Your task to perform on an android device: Go to Google maps Image 0: 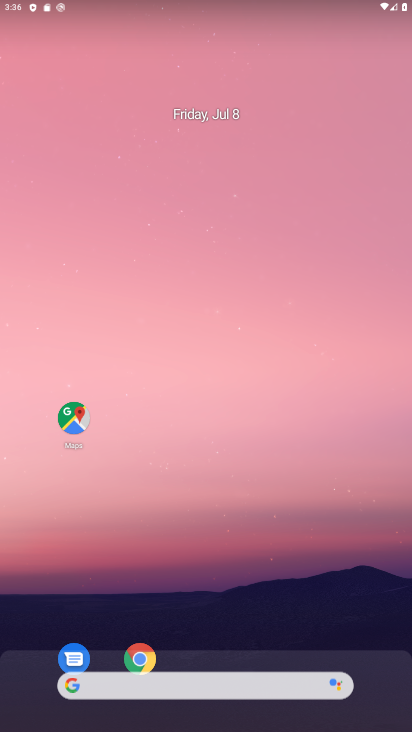
Step 0: drag from (267, 643) to (346, 109)
Your task to perform on an android device: Go to Google maps Image 1: 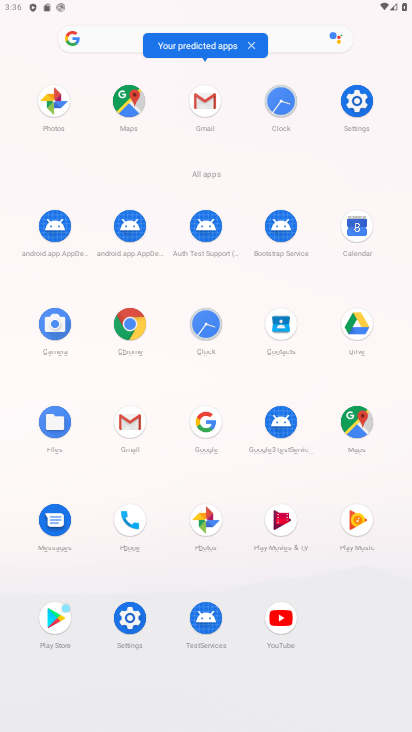
Step 1: click (355, 418)
Your task to perform on an android device: Go to Google maps Image 2: 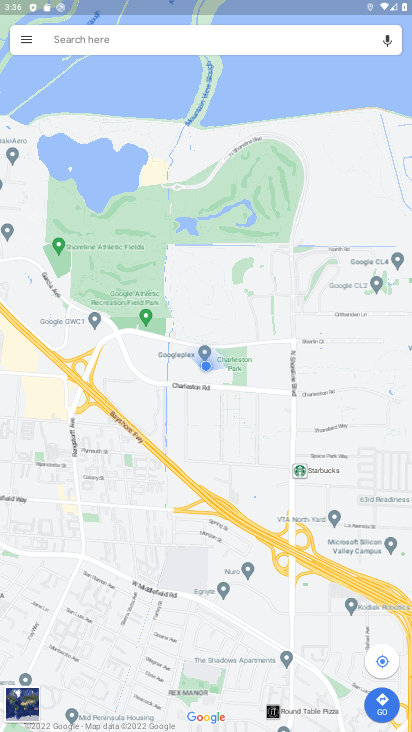
Step 2: task complete